Your task to perform on an android device: When is my next meeting? Image 0: 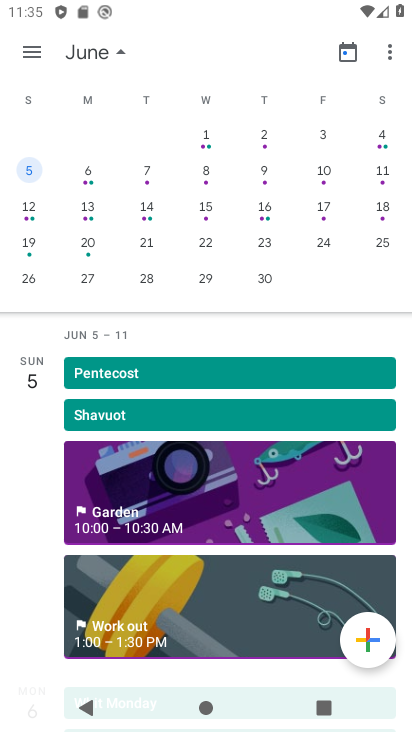
Step 0: click (399, 209)
Your task to perform on an android device: When is my next meeting? Image 1: 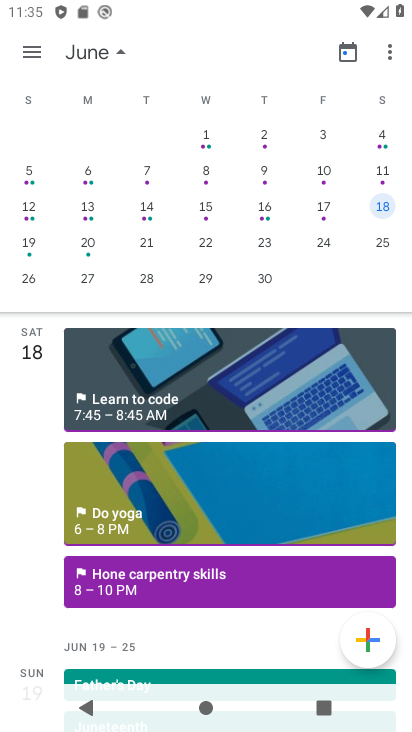
Step 1: drag from (223, 243) to (404, 250)
Your task to perform on an android device: When is my next meeting? Image 2: 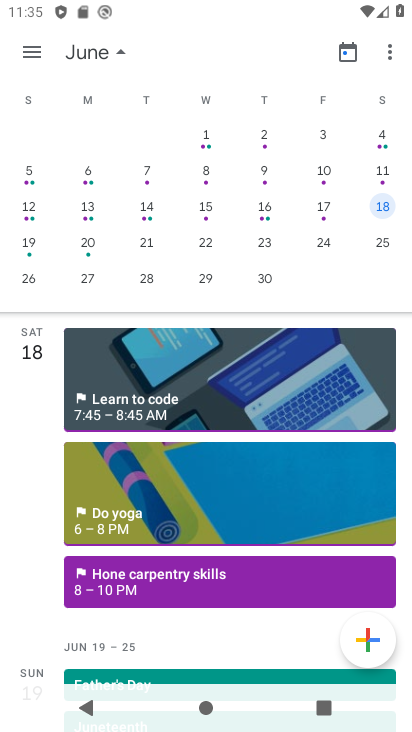
Step 2: drag from (31, 143) to (410, 195)
Your task to perform on an android device: When is my next meeting? Image 3: 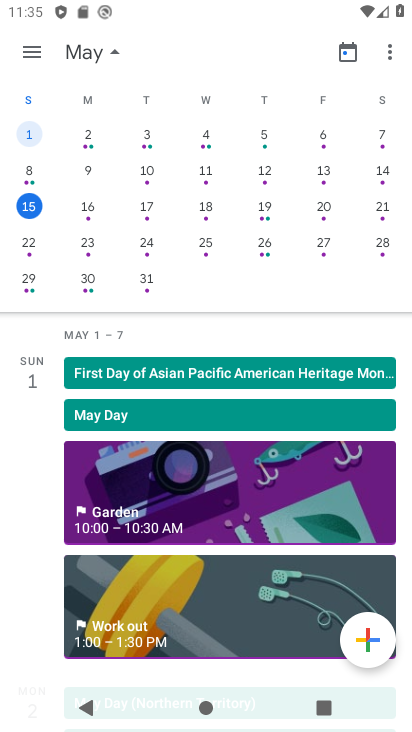
Step 3: click (29, 201)
Your task to perform on an android device: When is my next meeting? Image 4: 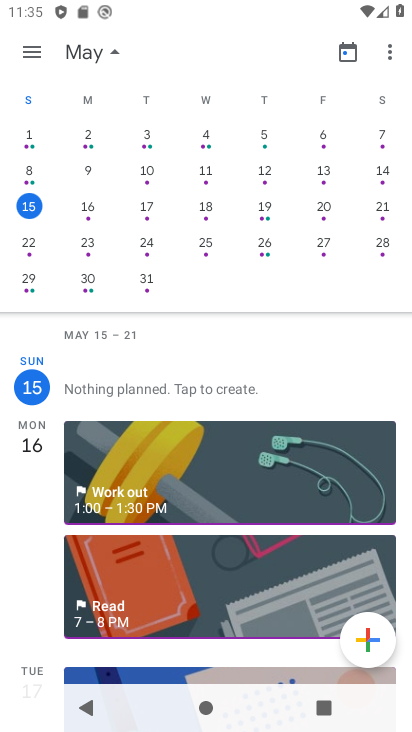
Step 4: task complete